Your task to perform on an android device: see sites visited before in the chrome app Image 0: 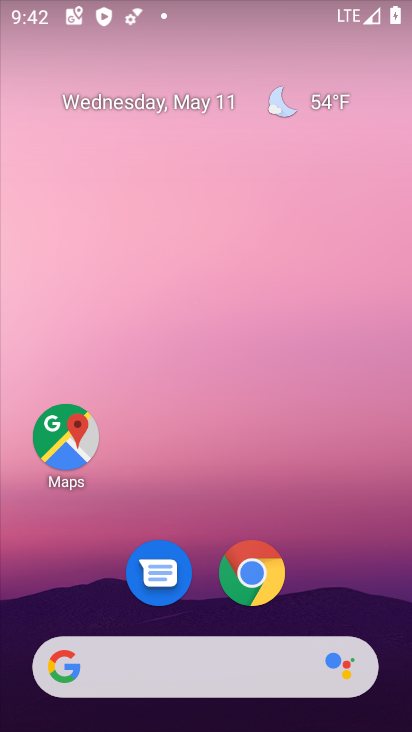
Step 0: click (273, 581)
Your task to perform on an android device: see sites visited before in the chrome app Image 1: 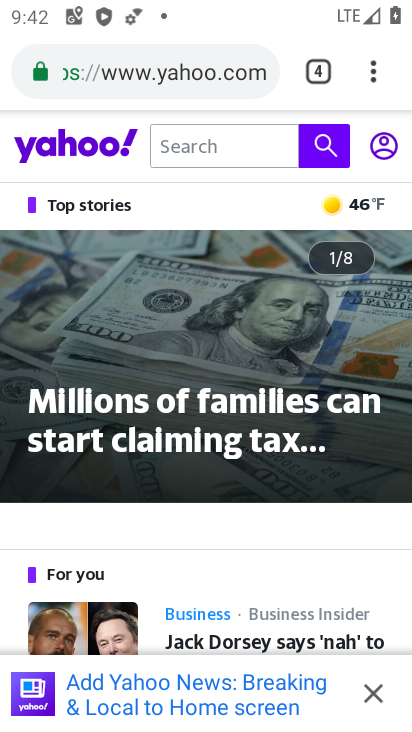
Step 1: click (381, 74)
Your task to perform on an android device: see sites visited before in the chrome app Image 2: 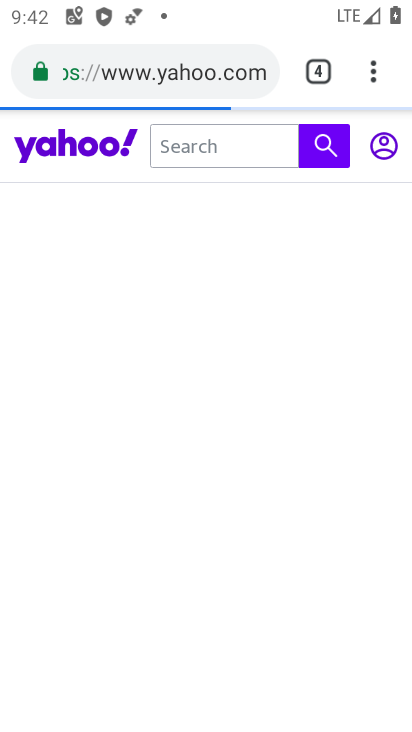
Step 2: task complete